Your task to perform on an android device: Go to eBay Image 0: 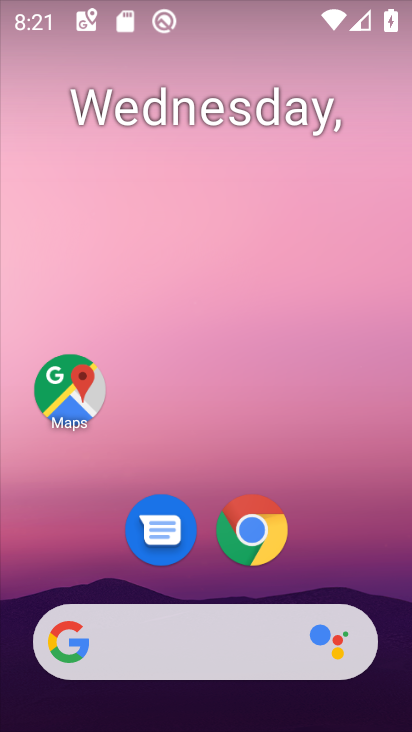
Step 0: drag from (377, 609) to (216, 81)
Your task to perform on an android device: Go to eBay Image 1: 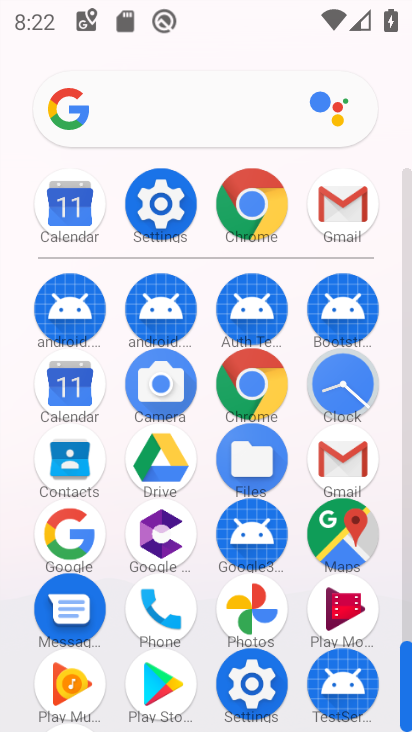
Step 1: click (247, 199)
Your task to perform on an android device: Go to eBay Image 2: 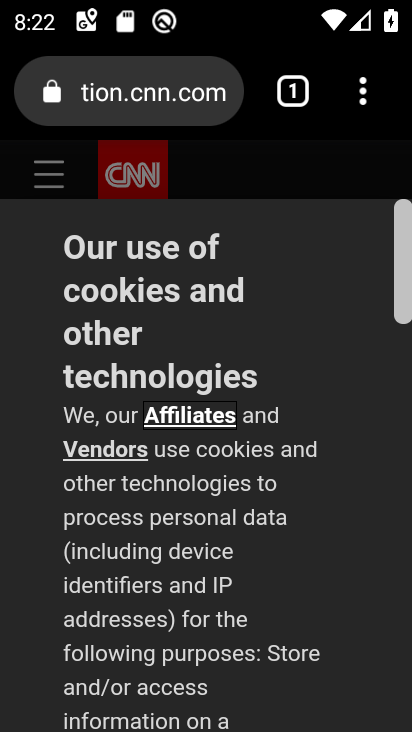
Step 2: press back button
Your task to perform on an android device: Go to eBay Image 3: 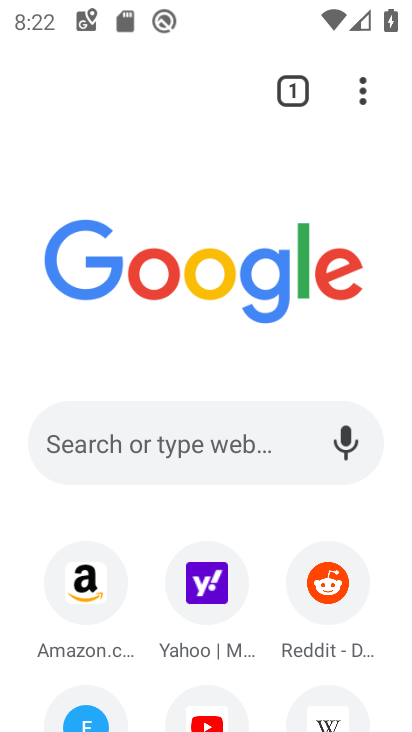
Step 3: click (193, 440)
Your task to perform on an android device: Go to eBay Image 4: 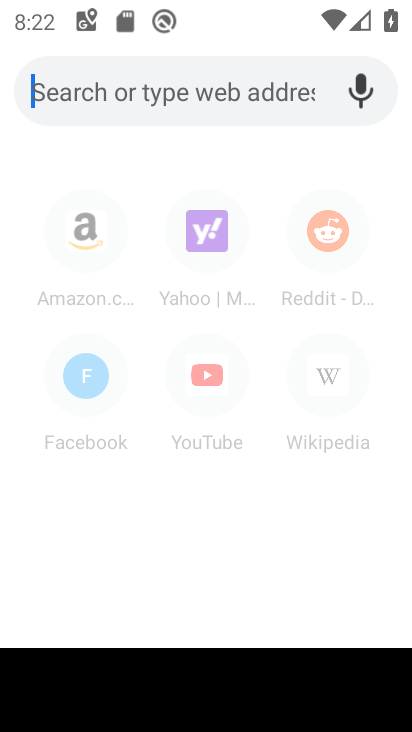
Step 4: type "ebay"
Your task to perform on an android device: Go to eBay Image 5: 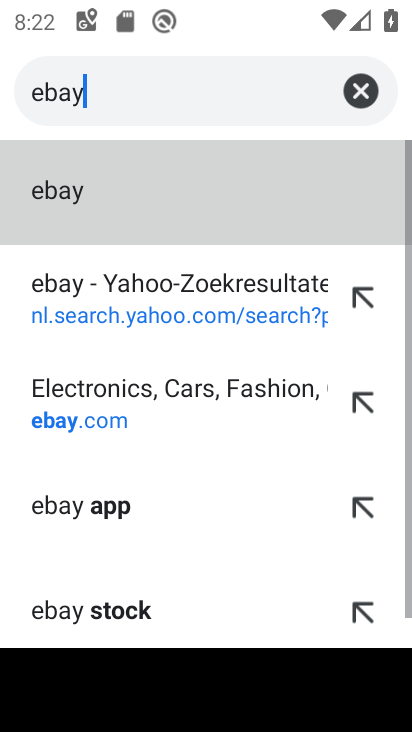
Step 5: click (83, 214)
Your task to perform on an android device: Go to eBay Image 6: 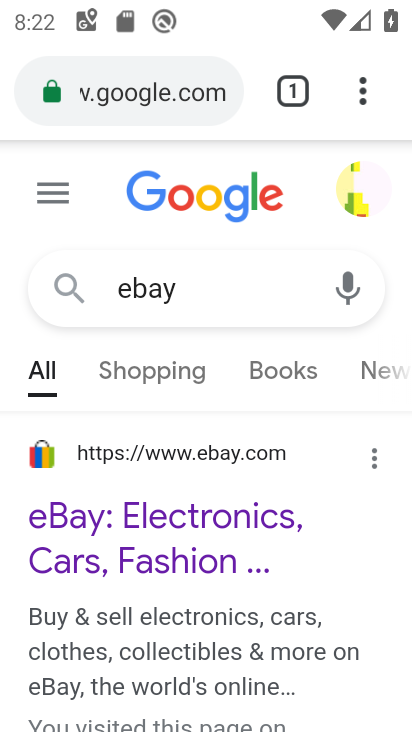
Step 6: click (134, 504)
Your task to perform on an android device: Go to eBay Image 7: 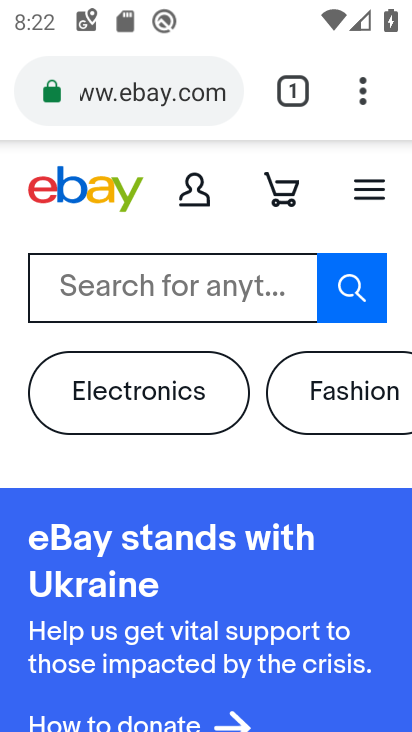
Step 7: task complete